Your task to perform on an android device: Go to internet settings Image 0: 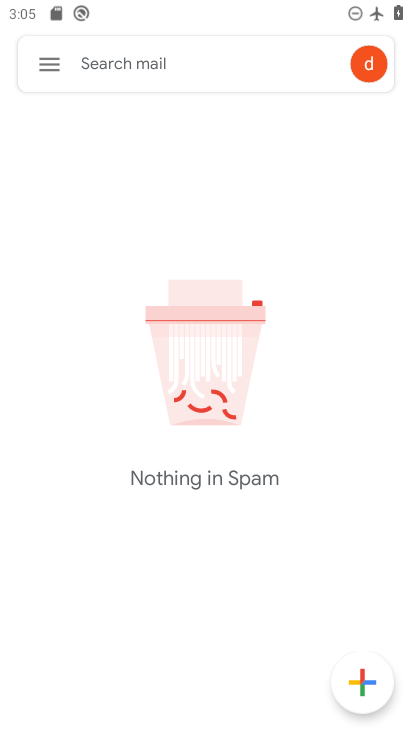
Step 0: press home button
Your task to perform on an android device: Go to internet settings Image 1: 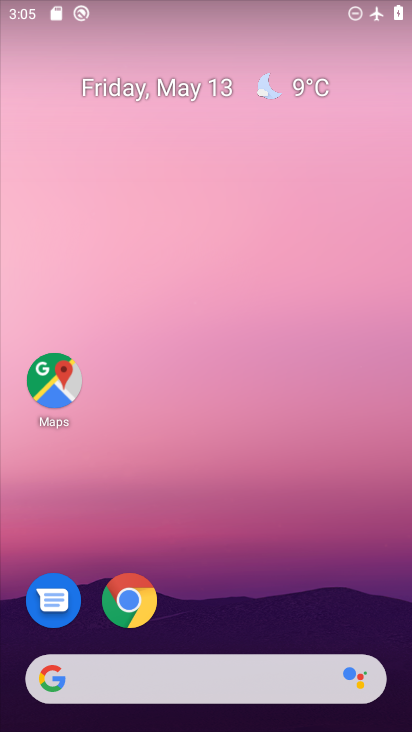
Step 1: drag from (205, 669) to (267, 205)
Your task to perform on an android device: Go to internet settings Image 2: 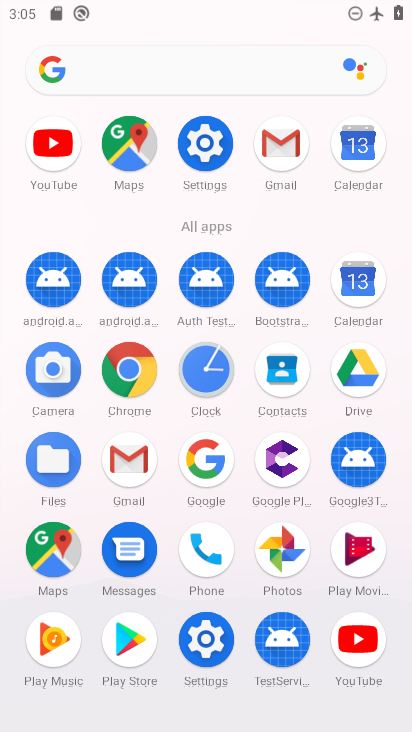
Step 2: click (199, 146)
Your task to perform on an android device: Go to internet settings Image 3: 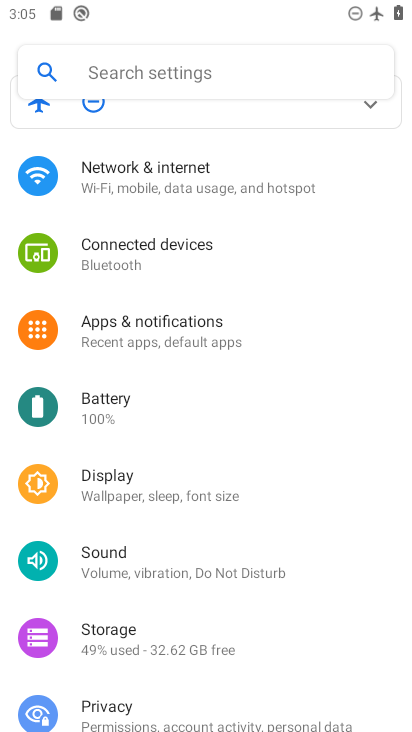
Step 3: click (204, 178)
Your task to perform on an android device: Go to internet settings Image 4: 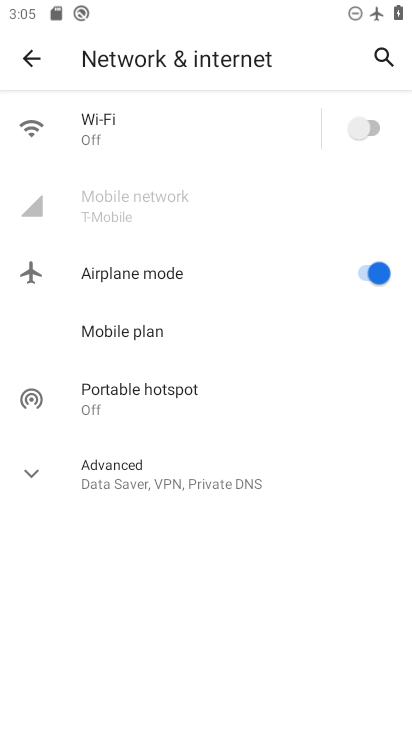
Step 4: click (132, 477)
Your task to perform on an android device: Go to internet settings Image 5: 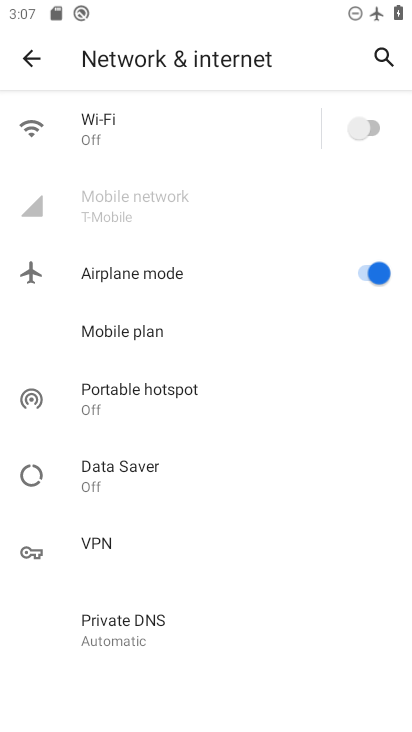
Step 5: task complete